Your task to perform on an android device: Search for sushi restaurants on Maps Image 0: 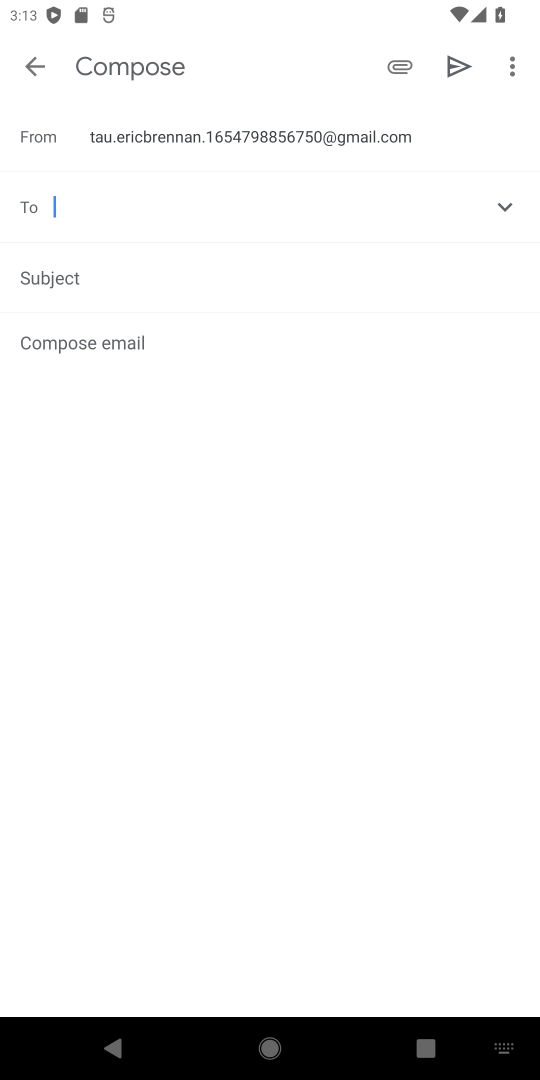
Step 0: press home button
Your task to perform on an android device: Search for sushi restaurants on Maps Image 1: 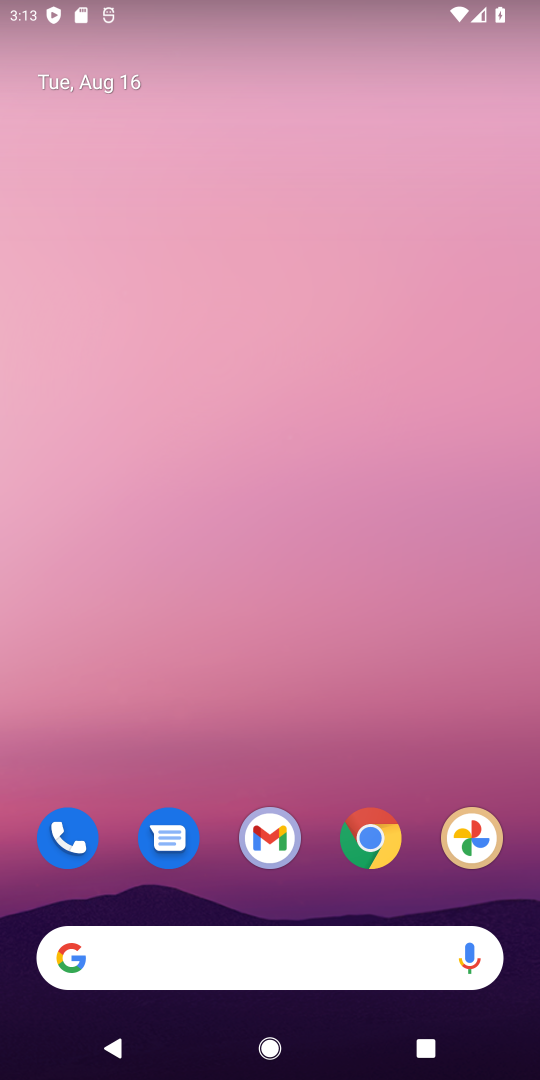
Step 1: drag from (256, 907) to (233, 21)
Your task to perform on an android device: Search for sushi restaurants on Maps Image 2: 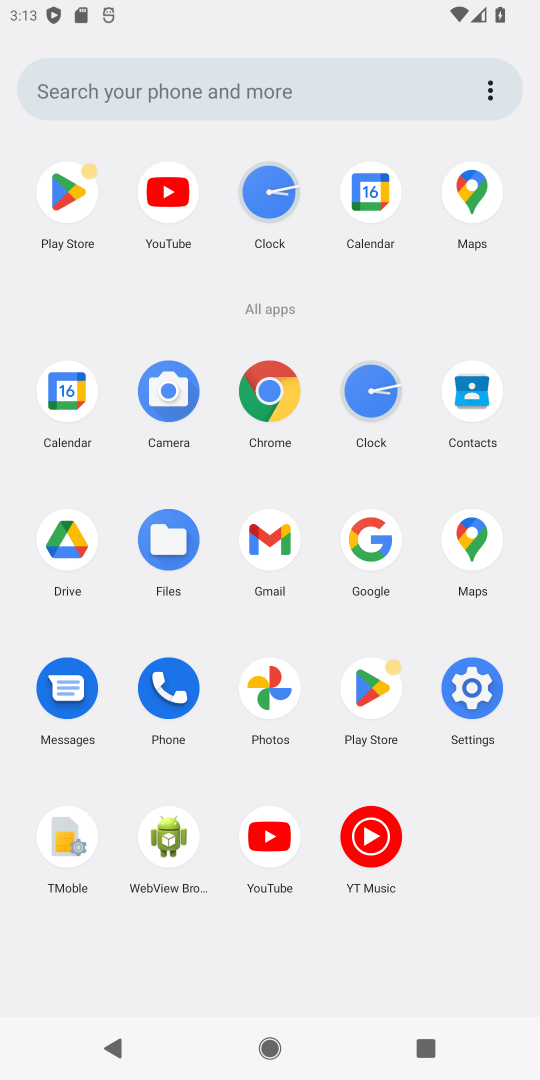
Step 2: click (471, 542)
Your task to perform on an android device: Search for sushi restaurants on Maps Image 3: 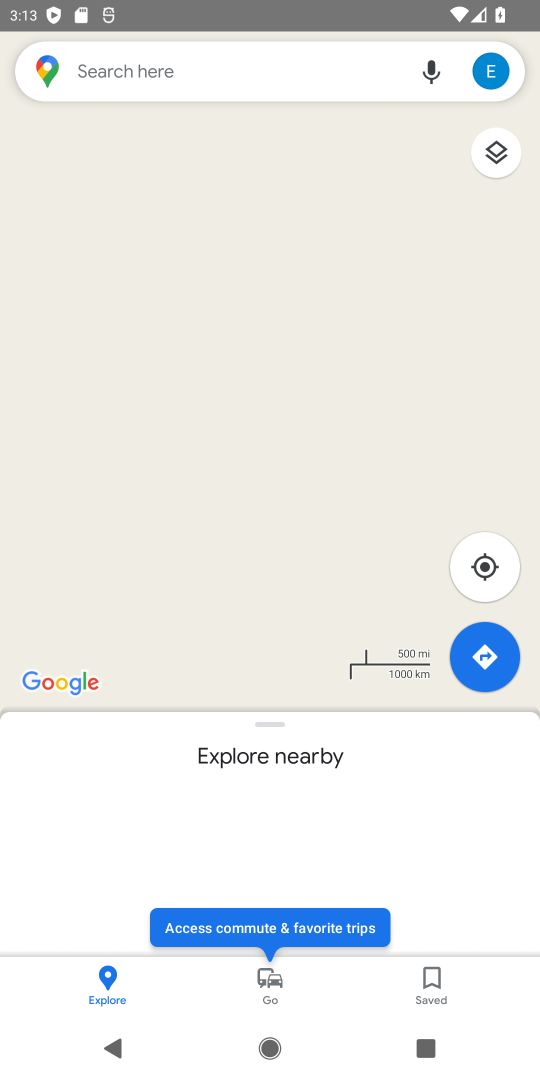
Step 3: click (136, 68)
Your task to perform on an android device: Search for sushi restaurants on Maps Image 4: 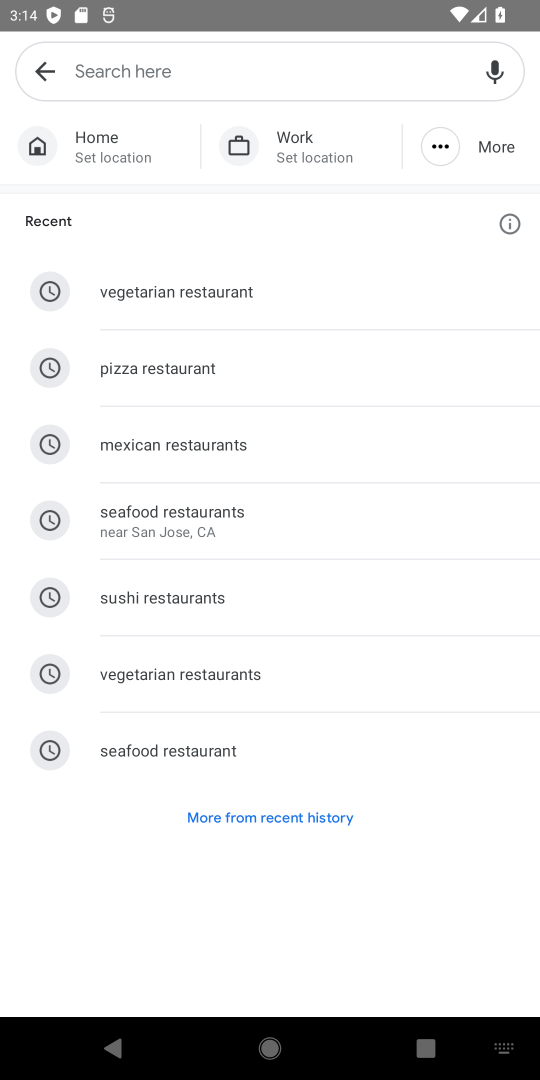
Step 4: click (127, 602)
Your task to perform on an android device: Search for sushi restaurants on Maps Image 5: 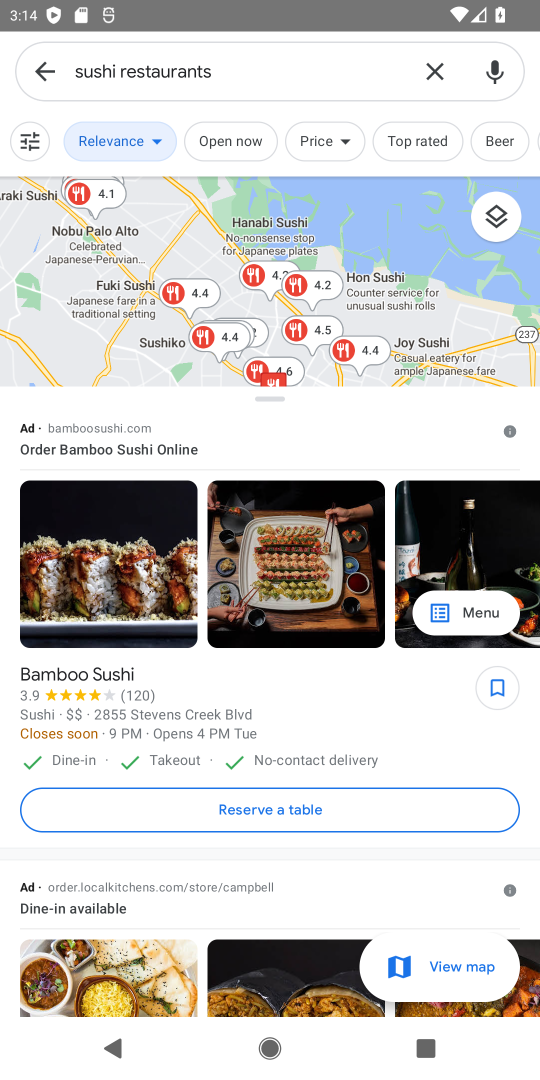
Step 5: task complete